Your task to perform on an android device: turn on translation in the chrome app Image 0: 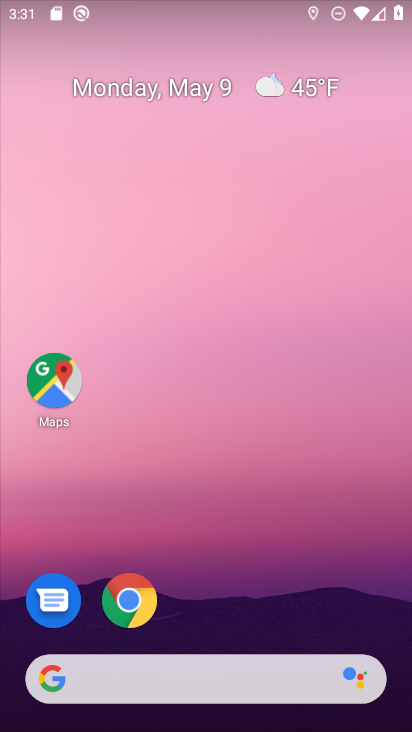
Step 0: click (133, 600)
Your task to perform on an android device: turn on translation in the chrome app Image 1: 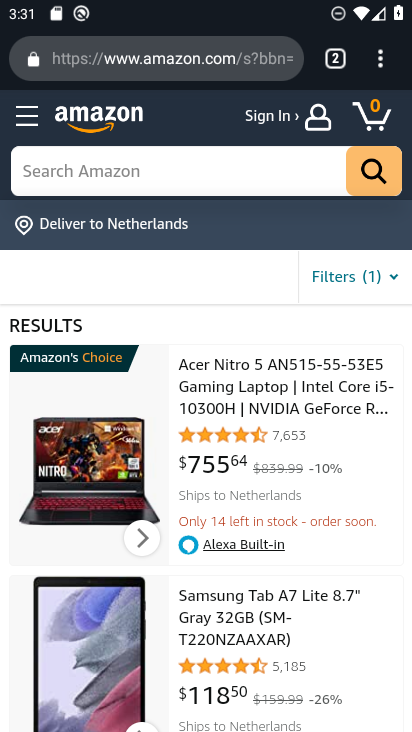
Step 1: click (150, 596)
Your task to perform on an android device: turn on translation in the chrome app Image 2: 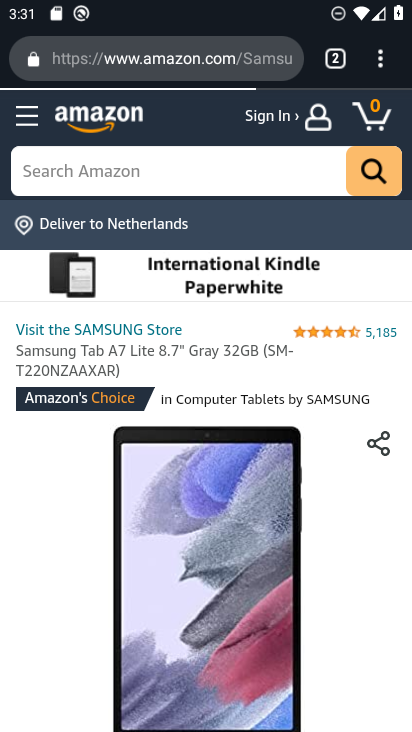
Step 2: click (393, 66)
Your task to perform on an android device: turn on translation in the chrome app Image 3: 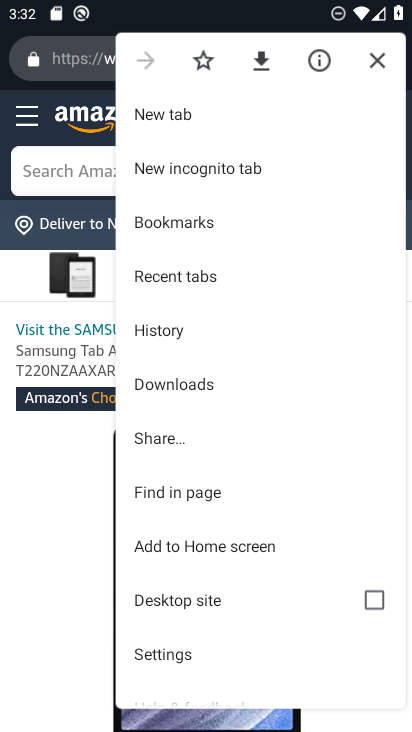
Step 3: click (162, 660)
Your task to perform on an android device: turn on translation in the chrome app Image 4: 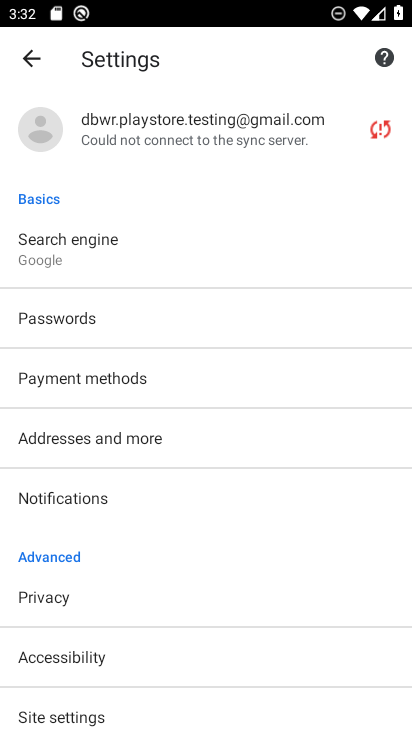
Step 4: drag from (112, 631) to (167, 274)
Your task to perform on an android device: turn on translation in the chrome app Image 5: 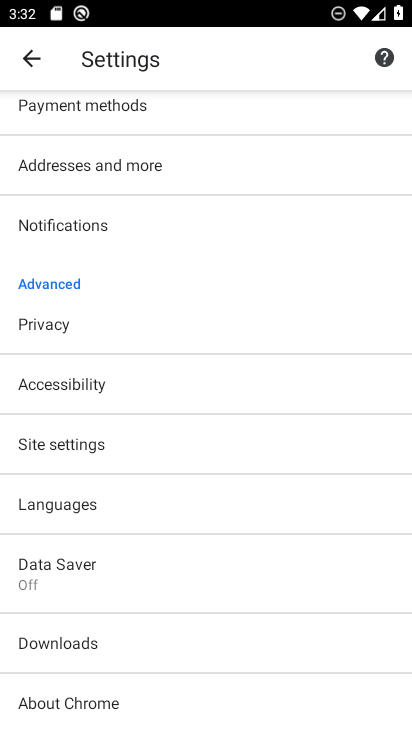
Step 5: click (68, 511)
Your task to perform on an android device: turn on translation in the chrome app Image 6: 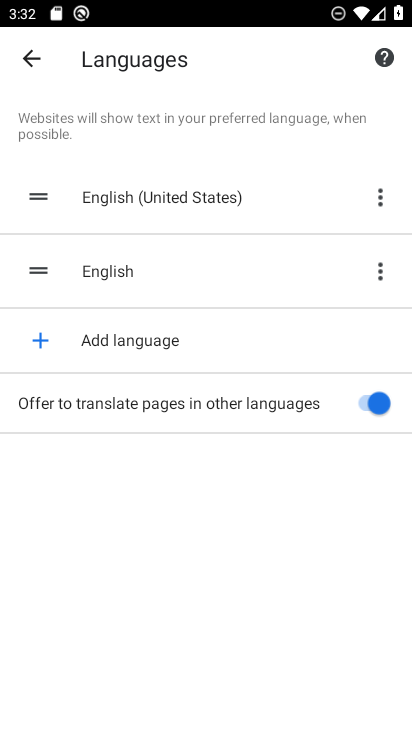
Step 6: task complete